Your task to perform on an android device: turn on the 24-hour format for clock Image 0: 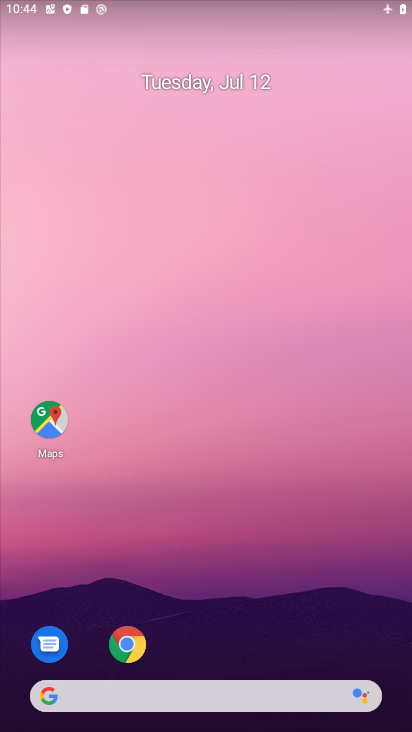
Step 0: drag from (189, 713) to (411, 14)
Your task to perform on an android device: turn on the 24-hour format for clock Image 1: 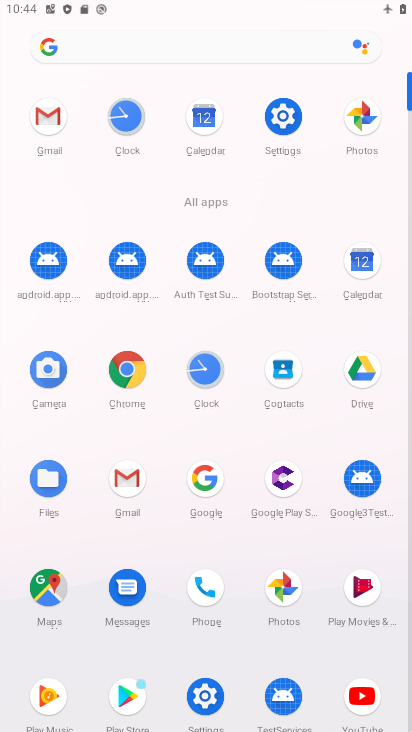
Step 1: click (201, 384)
Your task to perform on an android device: turn on the 24-hour format for clock Image 2: 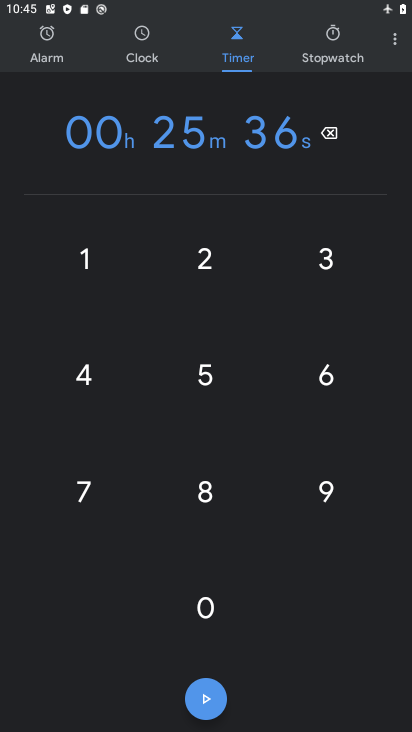
Step 2: click (388, 43)
Your task to perform on an android device: turn on the 24-hour format for clock Image 3: 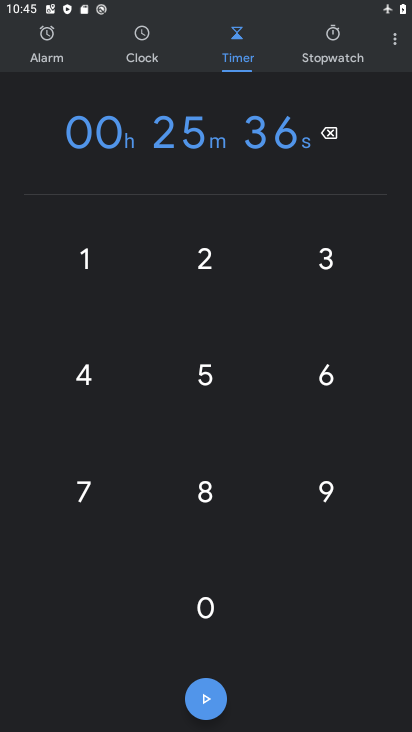
Step 3: click (392, 76)
Your task to perform on an android device: turn on the 24-hour format for clock Image 4: 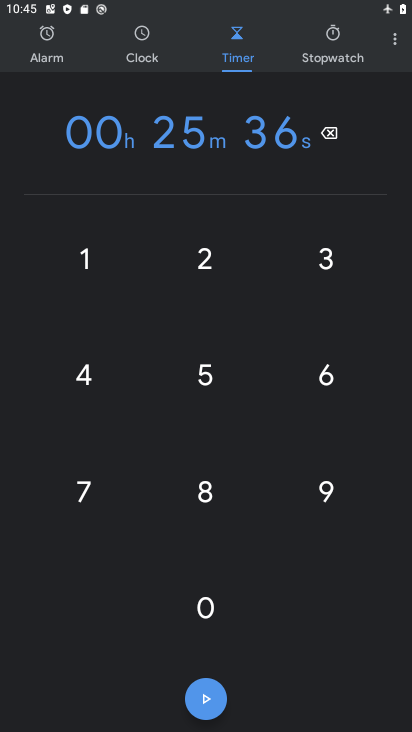
Step 4: click (392, 35)
Your task to perform on an android device: turn on the 24-hour format for clock Image 5: 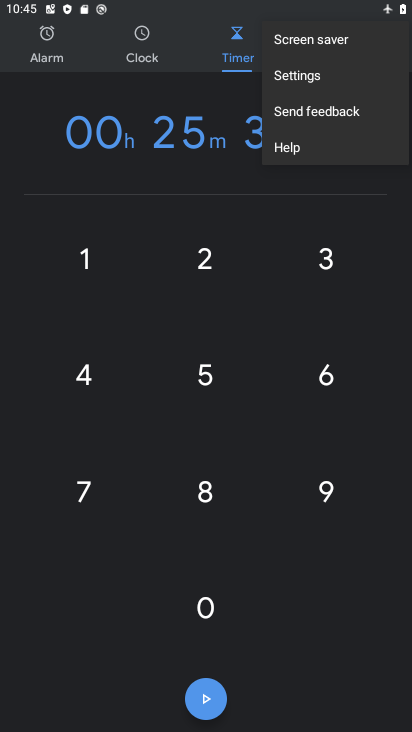
Step 5: click (336, 78)
Your task to perform on an android device: turn on the 24-hour format for clock Image 6: 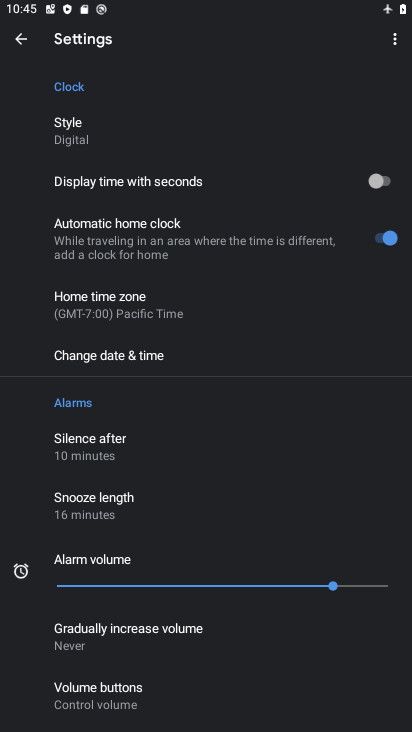
Step 6: click (147, 362)
Your task to perform on an android device: turn on the 24-hour format for clock Image 7: 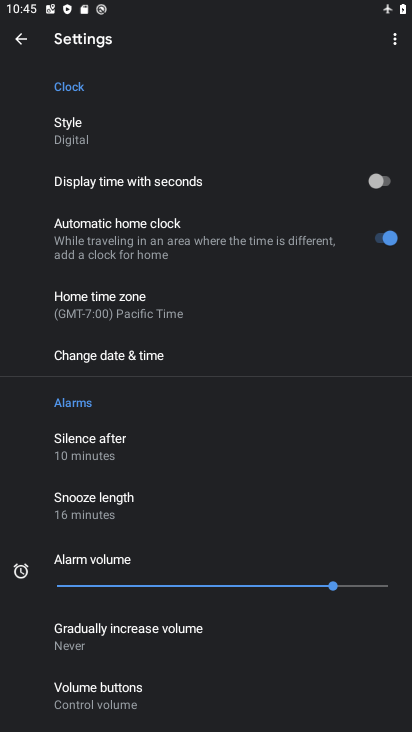
Step 7: click (158, 361)
Your task to perform on an android device: turn on the 24-hour format for clock Image 8: 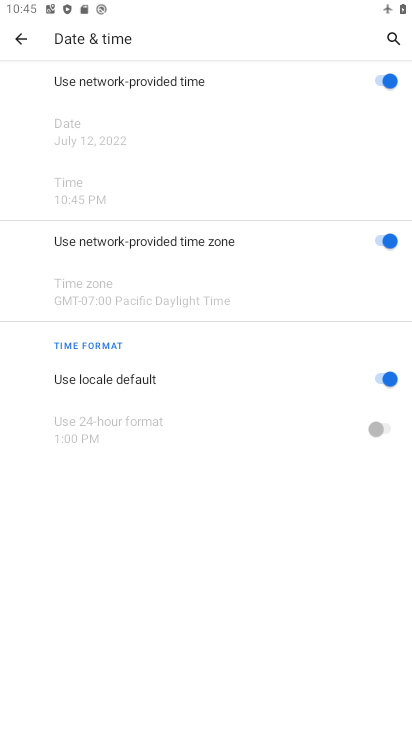
Step 8: click (392, 380)
Your task to perform on an android device: turn on the 24-hour format for clock Image 9: 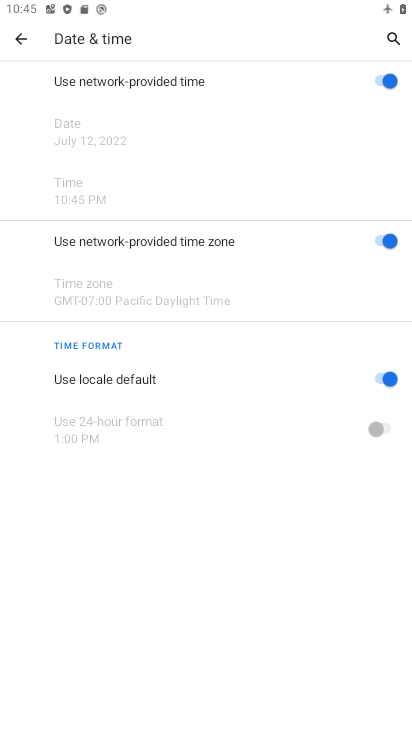
Step 9: click (379, 427)
Your task to perform on an android device: turn on the 24-hour format for clock Image 10: 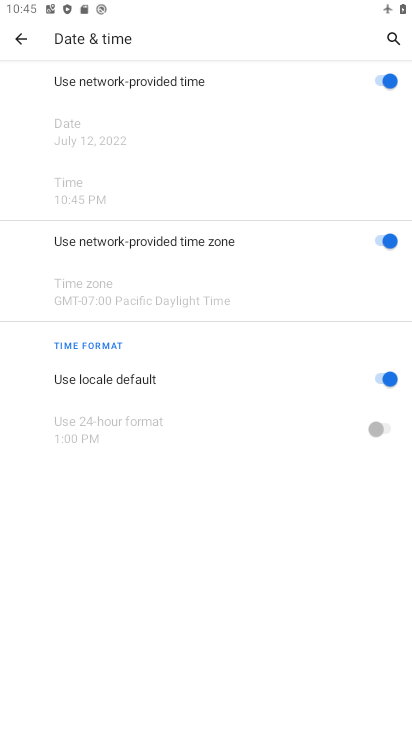
Step 10: click (383, 373)
Your task to perform on an android device: turn on the 24-hour format for clock Image 11: 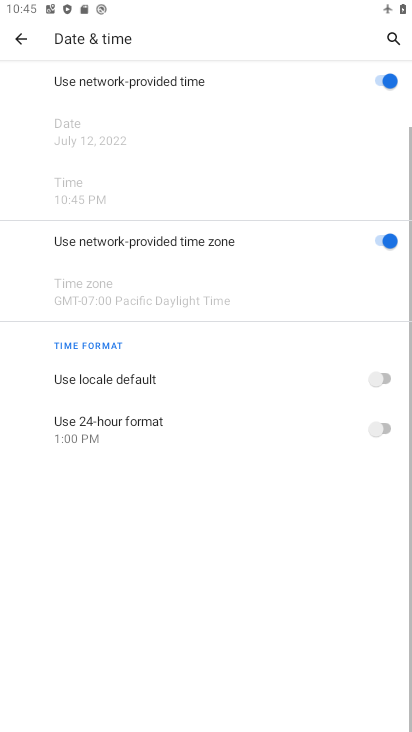
Step 11: click (378, 421)
Your task to perform on an android device: turn on the 24-hour format for clock Image 12: 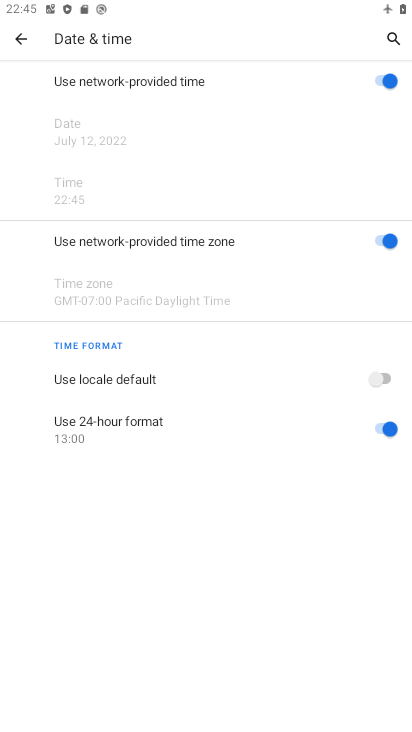
Step 12: task complete